Your task to perform on an android device: Do I have any events this weekend? Image 0: 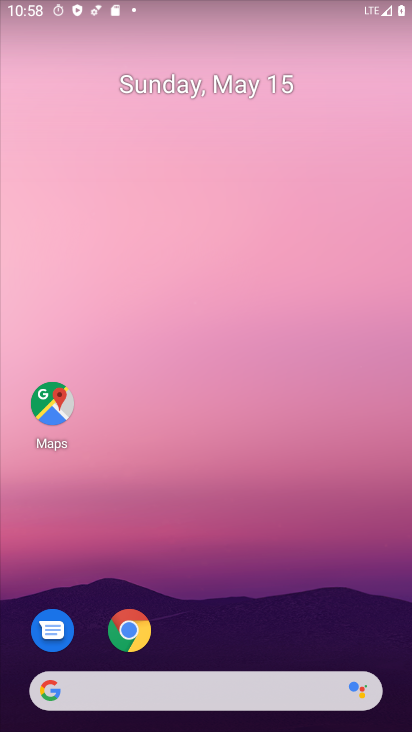
Step 0: drag from (216, 664) to (304, 64)
Your task to perform on an android device: Do I have any events this weekend? Image 1: 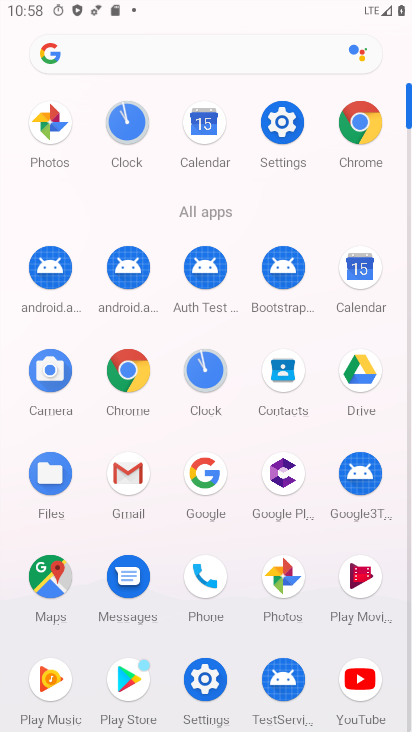
Step 1: click (191, 125)
Your task to perform on an android device: Do I have any events this weekend? Image 2: 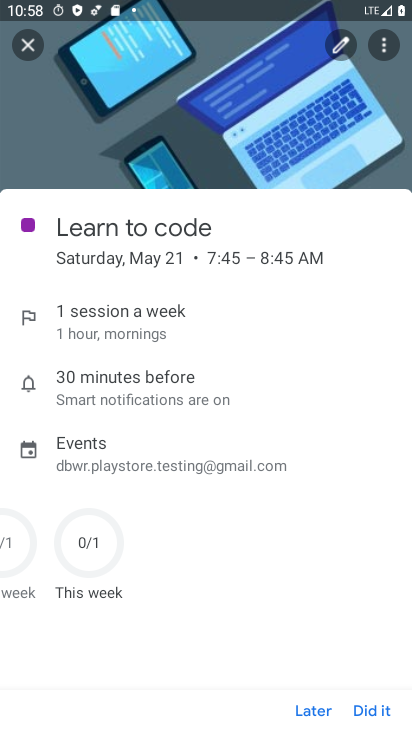
Step 2: click (21, 44)
Your task to perform on an android device: Do I have any events this weekend? Image 3: 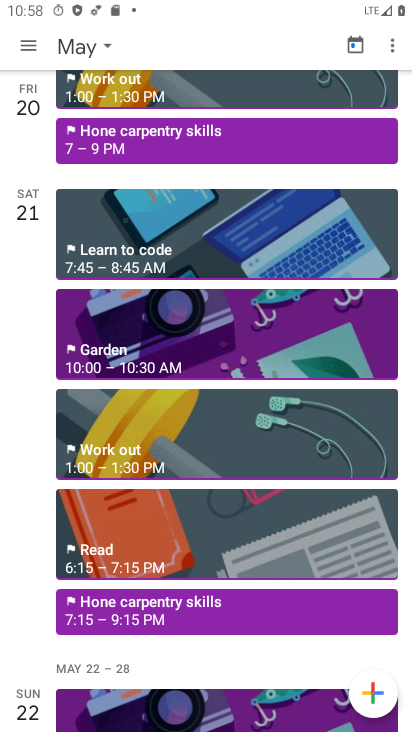
Step 3: drag from (225, 207) to (209, 340)
Your task to perform on an android device: Do I have any events this weekend? Image 4: 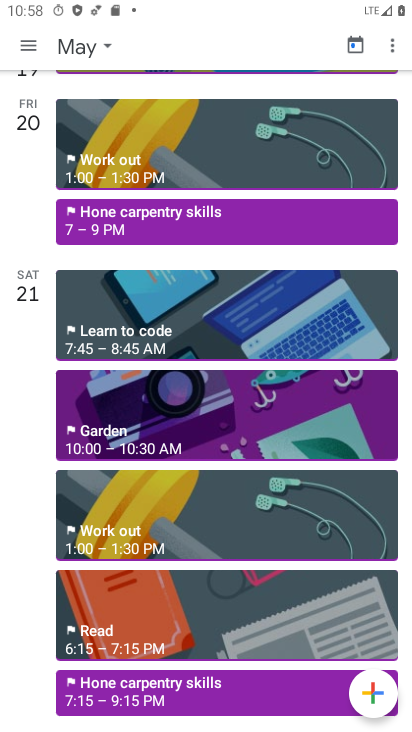
Step 4: drag from (289, 207) to (229, 627)
Your task to perform on an android device: Do I have any events this weekend? Image 5: 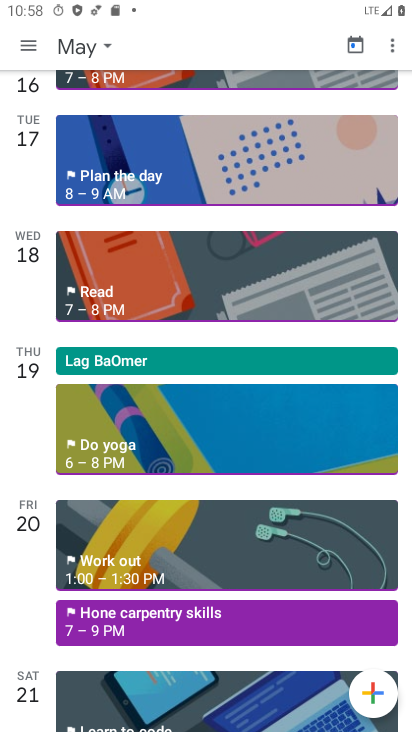
Step 5: drag from (230, 270) to (315, 193)
Your task to perform on an android device: Do I have any events this weekend? Image 6: 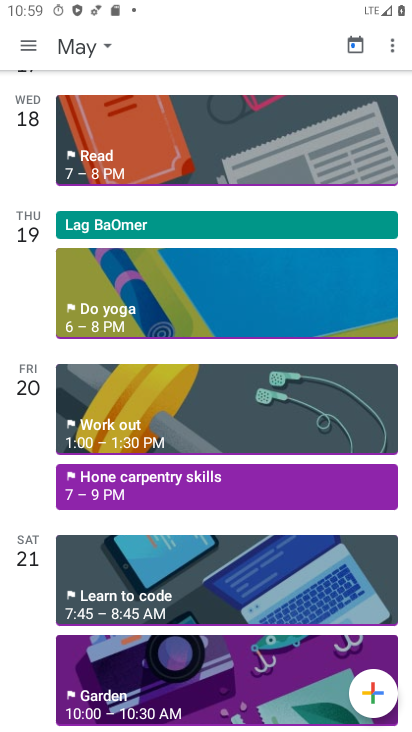
Step 6: drag from (244, 495) to (304, 110)
Your task to perform on an android device: Do I have any events this weekend? Image 7: 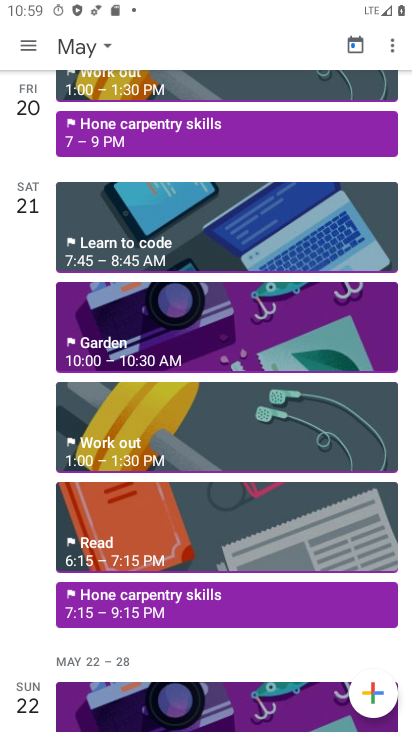
Step 7: click (159, 603)
Your task to perform on an android device: Do I have any events this weekend? Image 8: 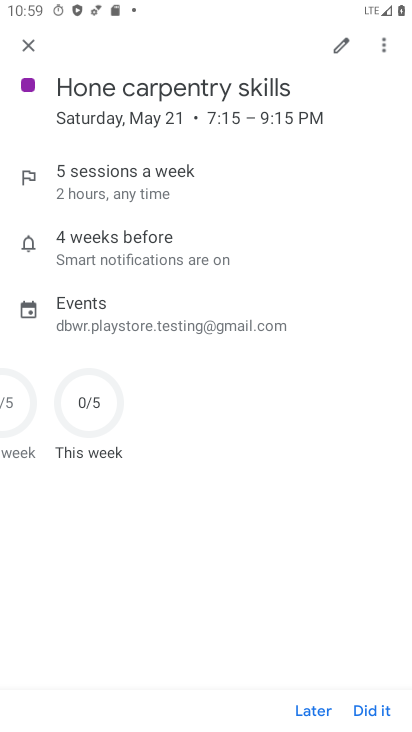
Step 8: task complete